Your task to perform on an android device: Open network settings Image 0: 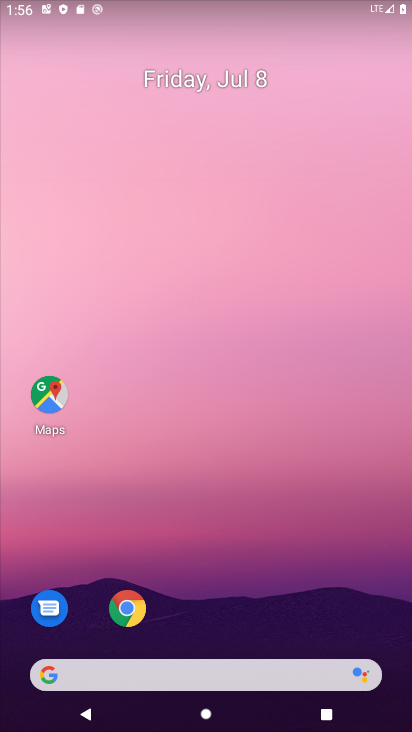
Step 0: drag from (361, 628) to (338, 103)
Your task to perform on an android device: Open network settings Image 1: 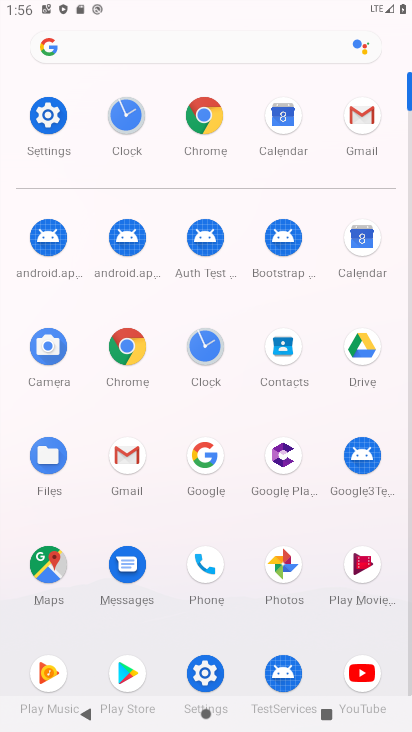
Step 1: click (203, 676)
Your task to perform on an android device: Open network settings Image 2: 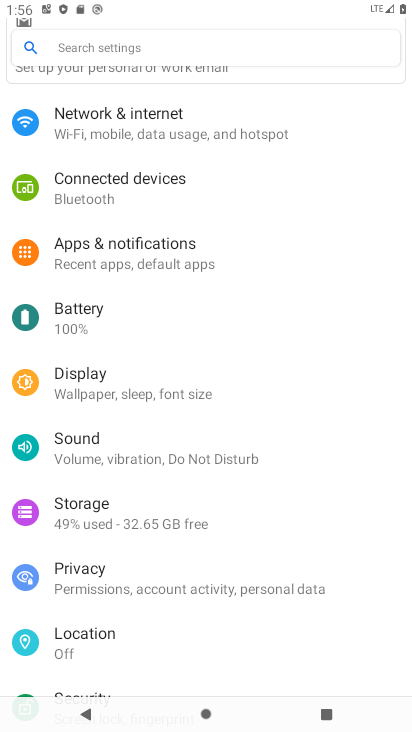
Step 2: click (89, 117)
Your task to perform on an android device: Open network settings Image 3: 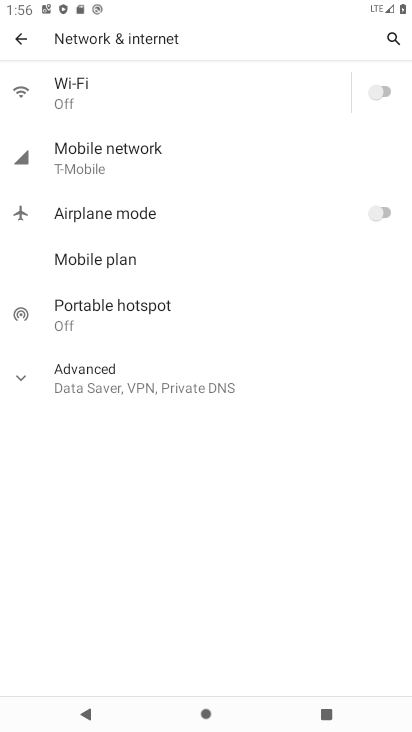
Step 3: click (97, 154)
Your task to perform on an android device: Open network settings Image 4: 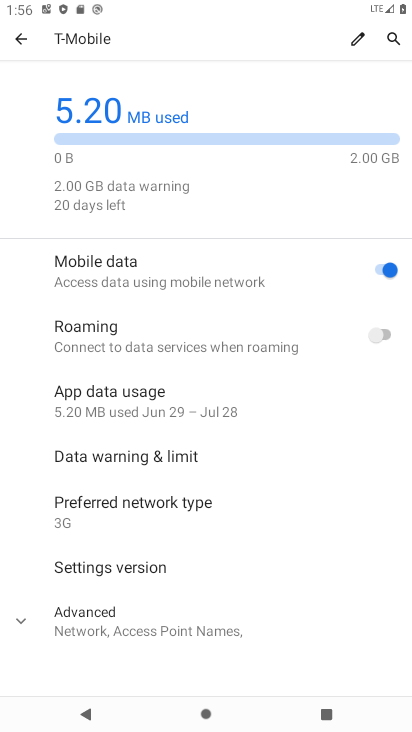
Step 4: click (24, 620)
Your task to perform on an android device: Open network settings Image 5: 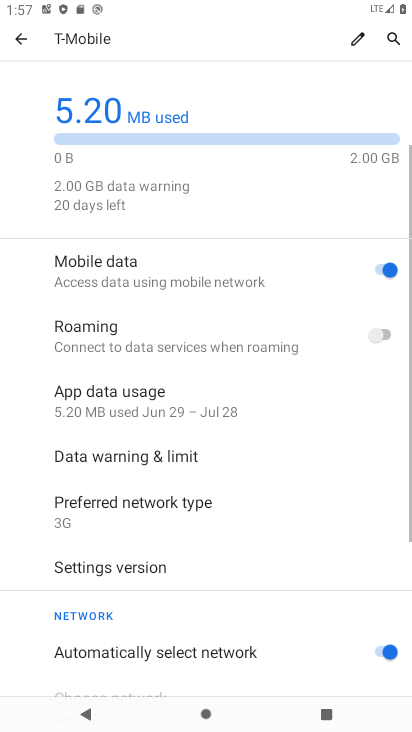
Step 5: task complete